Your task to perform on an android device: change timer sound Image 0: 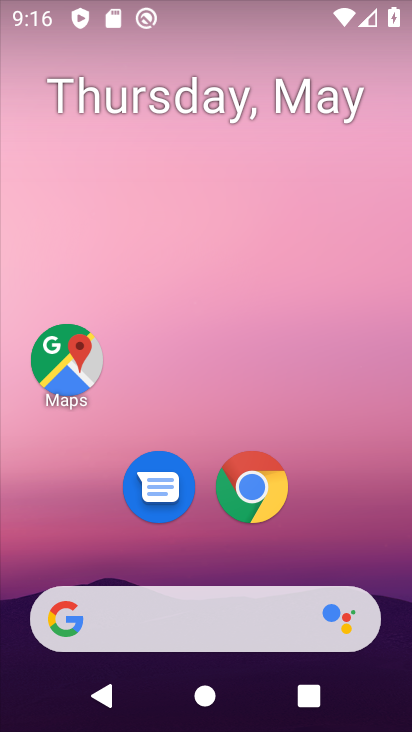
Step 0: drag from (196, 494) to (236, 97)
Your task to perform on an android device: change timer sound Image 1: 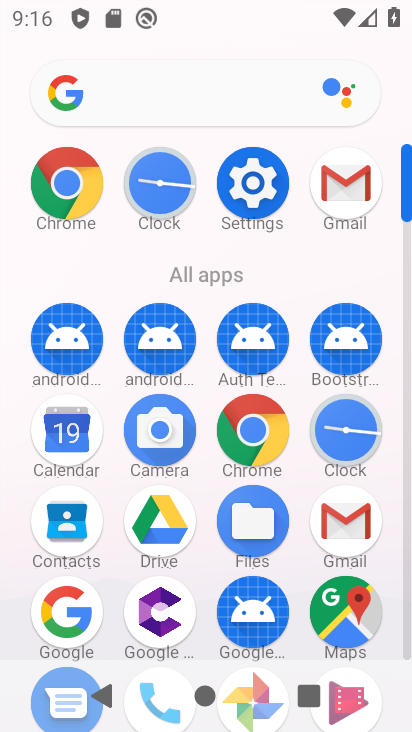
Step 1: click (269, 180)
Your task to perform on an android device: change timer sound Image 2: 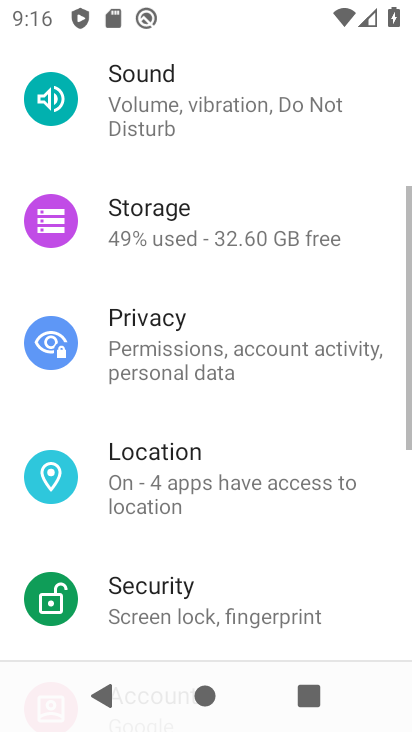
Step 2: press back button
Your task to perform on an android device: change timer sound Image 3: 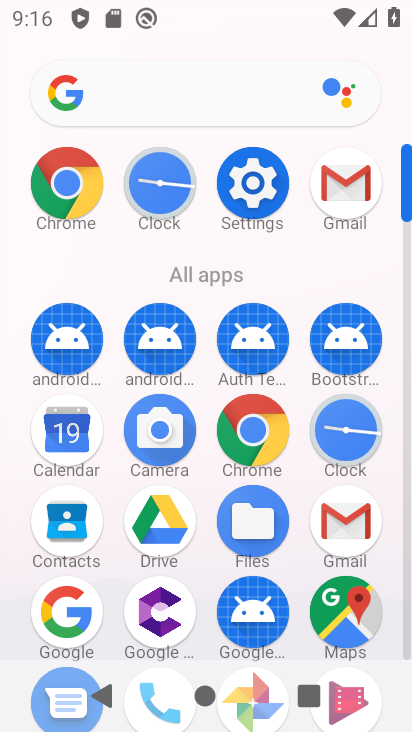
Step 3: press back button
Your task to perform on an android device: change timer sound Image 4: 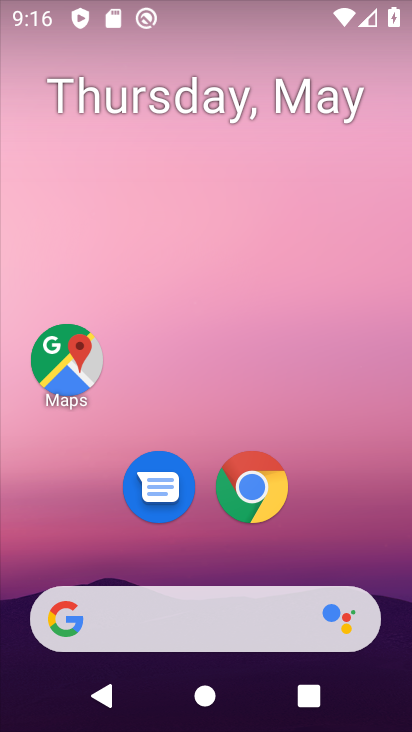
Step 4: drag from (206, 466) to (224, 23)
Your task to perform on an android device: change timer sound Image 5: 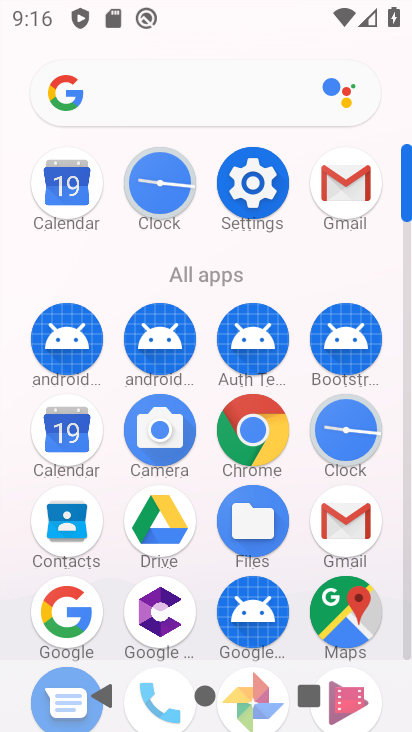
Step 5: click (152, 189)
Your task to perform on an android device: change timer sound Image 6: 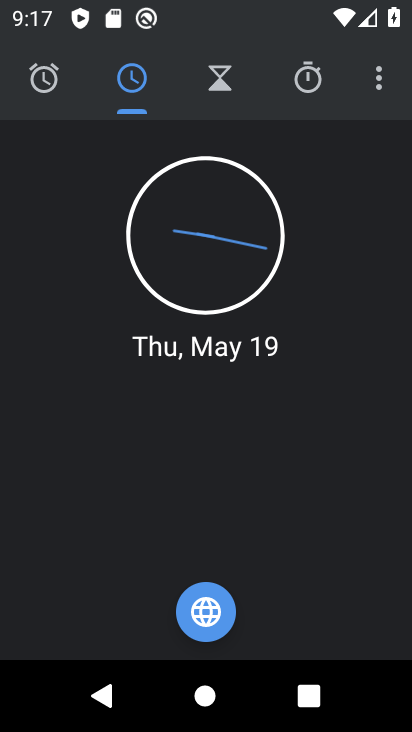
Step 6: click (383, 85)
Your task to perform on an android device: change timer sound Image 7: 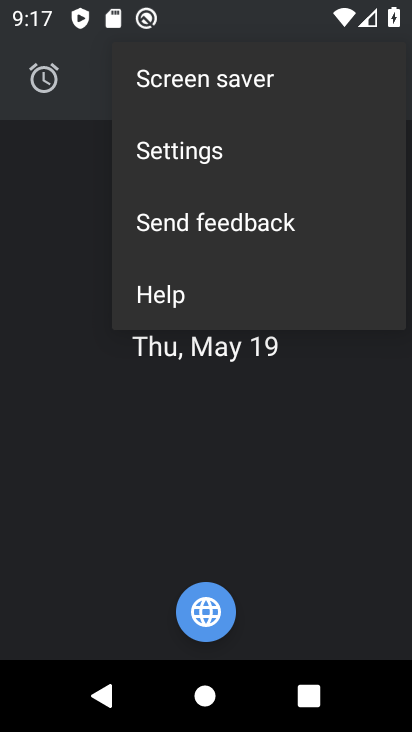
Step 7: click (221, 168)
Your task to perform on an android device: change timer sound Image 8: 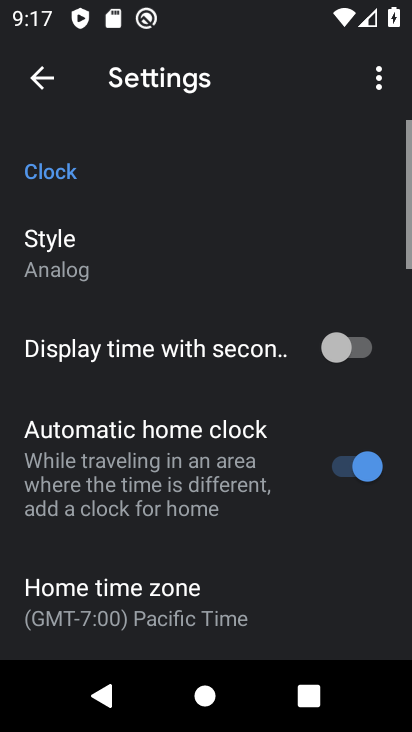
Step 8: drag from (148, 582) to (261, 126)
Your task to perform on an android device: change timer sound Image 9: 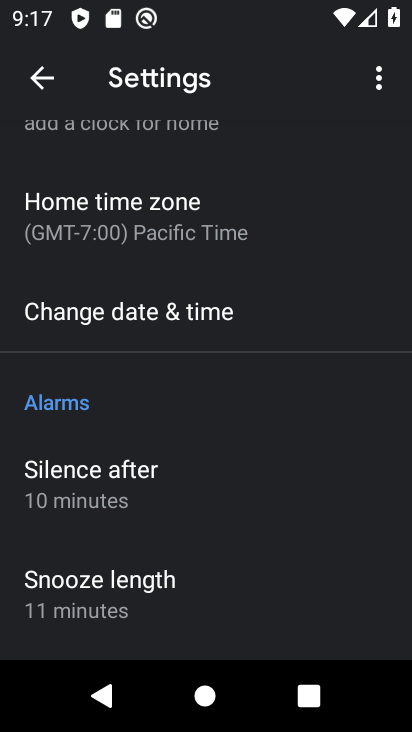
Step 9: drag from (157, 580) to (248, 247)
Your task to perform on an android device: change timer sound Image 10: 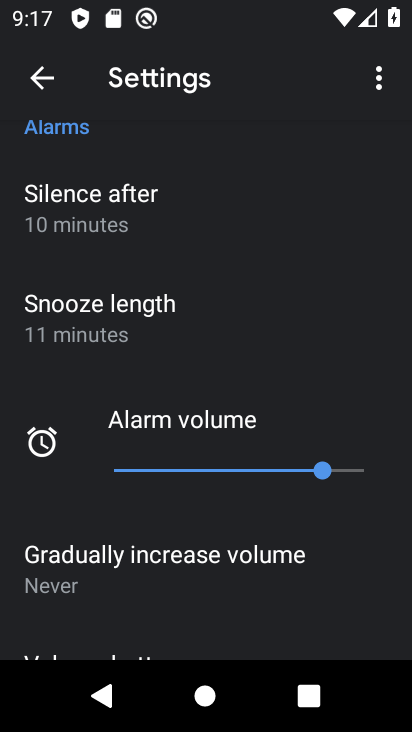
Step 10: drag from (142, 568) to (239, 219)
Your task to perform on an android device: change timer sound Image 11: 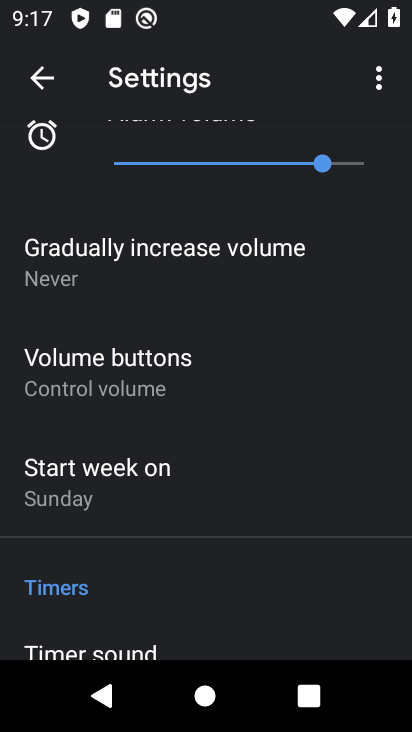
Step 11: drag from (164, 596) to (238, 298)
Your task to perform on an android device: change timer sound Image 12: 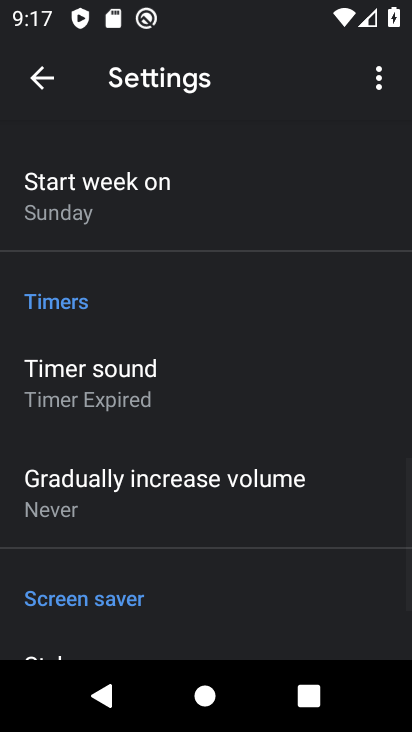
Step 12: click (113, 384)
Your task to perform on an android device: change timer sound Image 13: 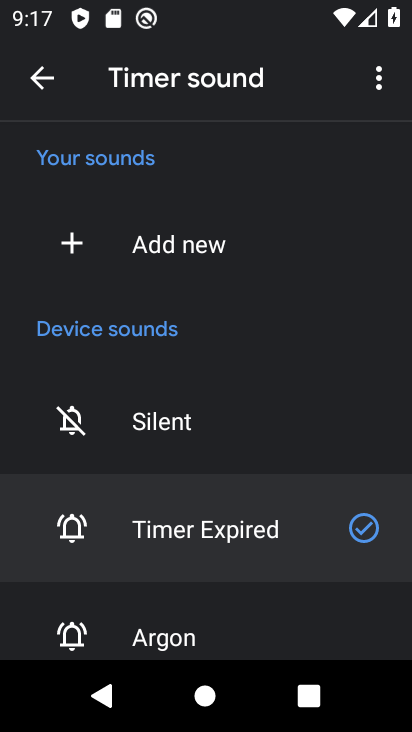
Step 13: click (154, 630)
Your task to perform on an android device: change timer sound Image 14: 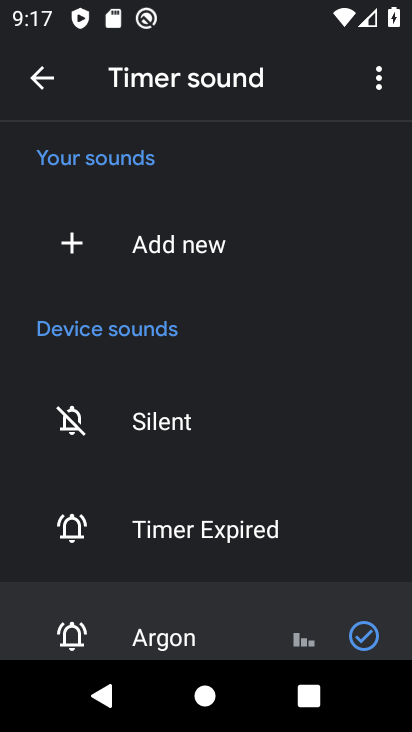
Step 14: task complete